Your task to perform on an android device: Open Wikipedia Image 0: 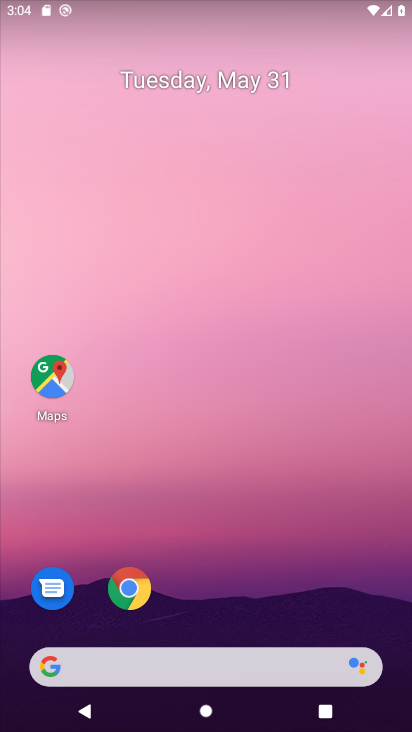
Step 0: drag from (247, 632) to (250, 84)
Your task to perform on an android device: Open Wikipedia Image 1: 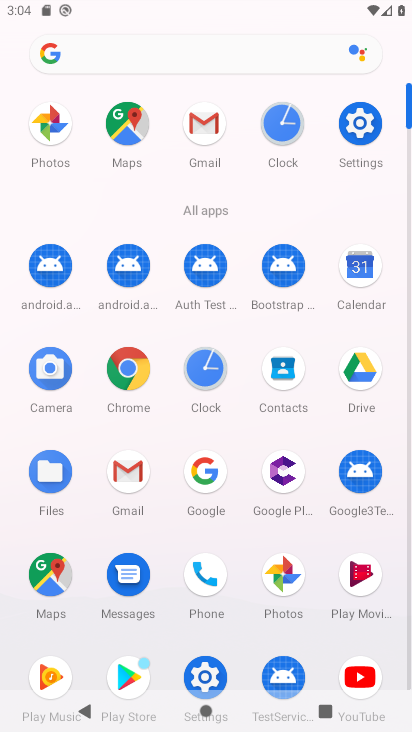
Step 1: click (132, 377)
Your task to perform on an android device: Open Wikipedia Image 2: 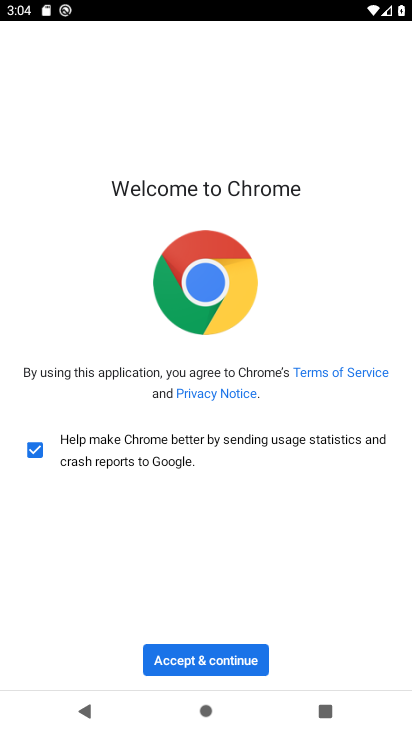
Step 2: click (253, 656)
Your task to perform on an android device: Open Wikipedia Image 3: 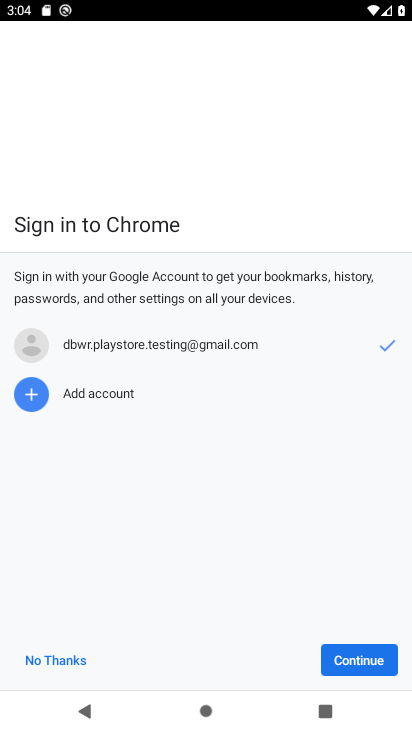
Step 3: click (346, 662)
Your task to perform on an android device: Open Wikipedia Image 4: 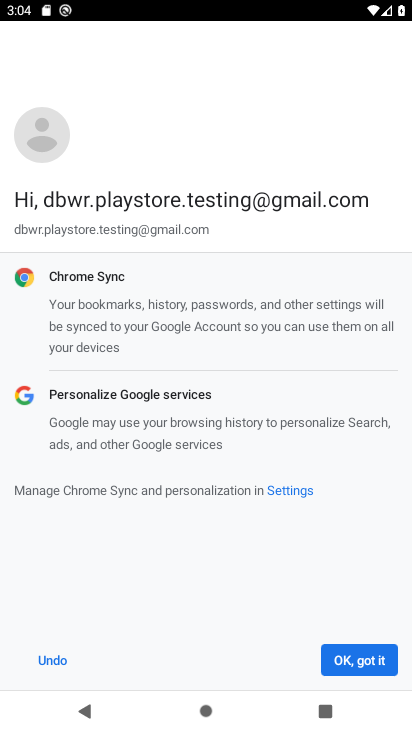
Step 4: click (346, 662)
Your task to perform on an android device: Open Wikipedia Image 5: 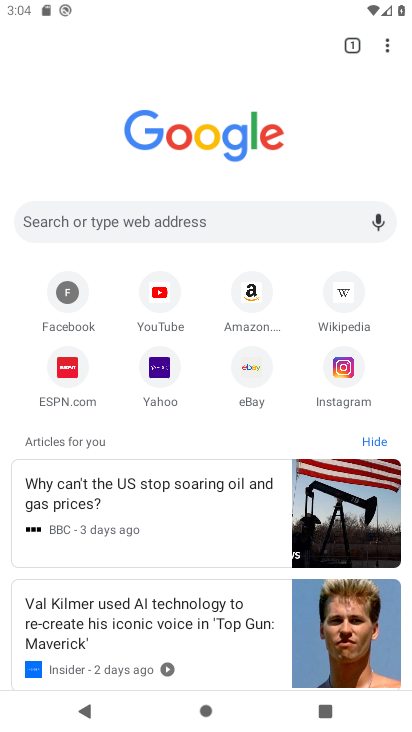
Step 5: click (341, 308)
Your task to perform on an android device: Open Wikipedia Image 6: 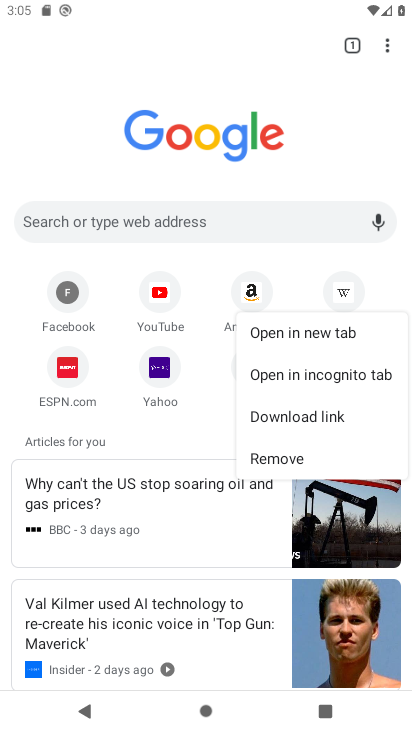
Step 6: click (344, 291)
Your task to perform on an android device: Open Wikipedia Image 7: 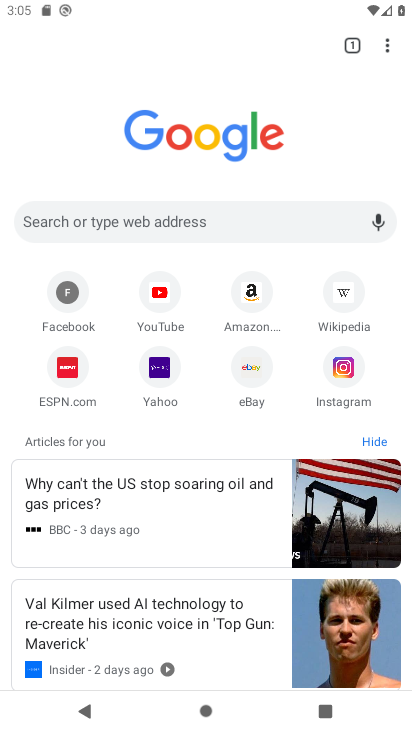
Step 7: click (345, 295)
Your task to perform on an android device: Open Wikipedia Image 8: 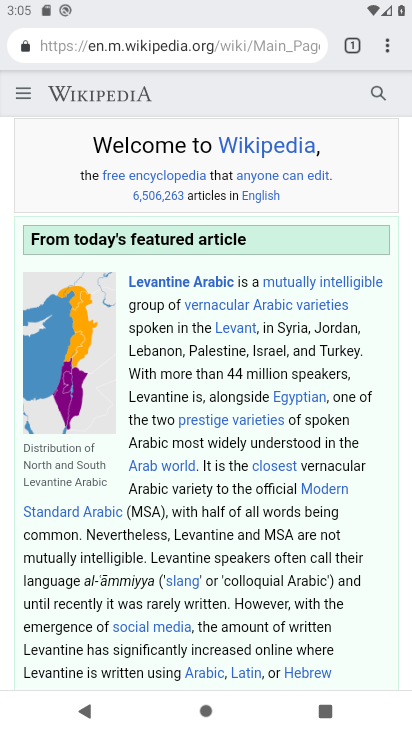
Step 8: task complete